Your task to perform on an android device: open a new tab in the chrome app Image 0: 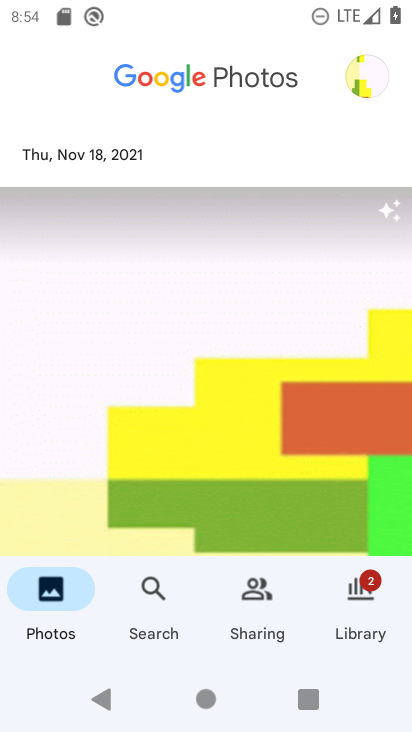
Step 0: press home button
Your task to perform on an android device: open a new tab in the chrome app Image 1: 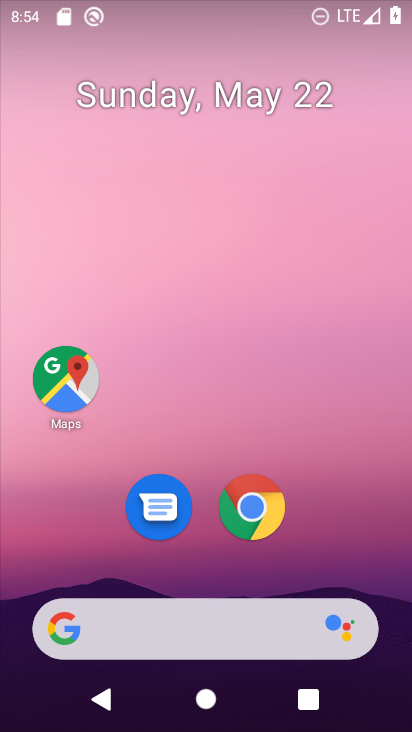
Step 1: click (258, 496)
Your task to perform on an android device: open a new tab in the chrome app Image 2: 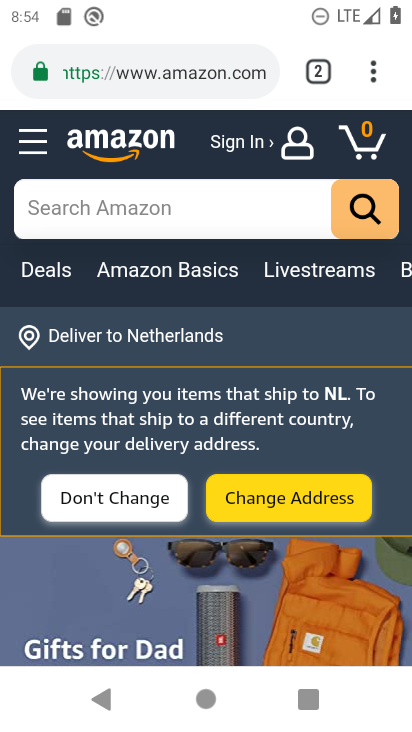
Step 2: click (395, 66)
Your task to perform on an android device: open a new tab in the chrome app Image 3: 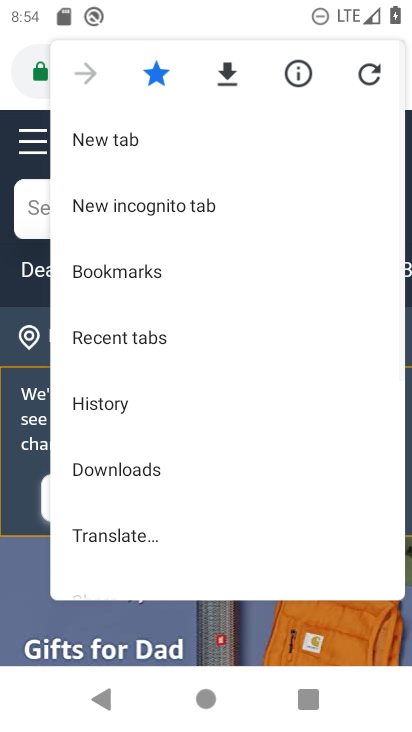
Step 3: click (132, 146)
Your task to perform on an android device: open a new tab in the chrome app Image 4: 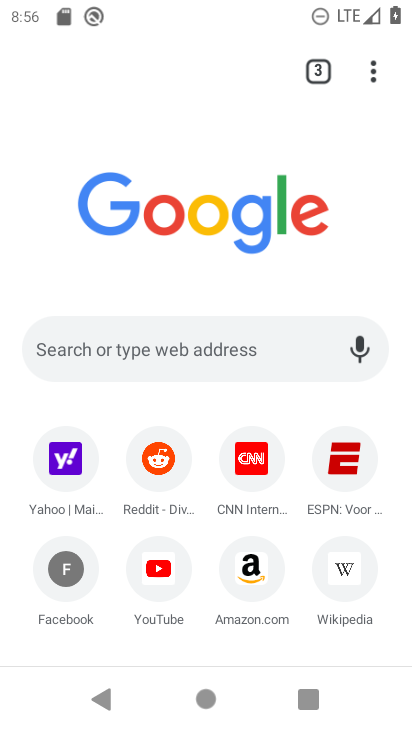
Step 4: click (362, 69)
Your task to perform on an android device: open a new tab in the chrome app Image 5: 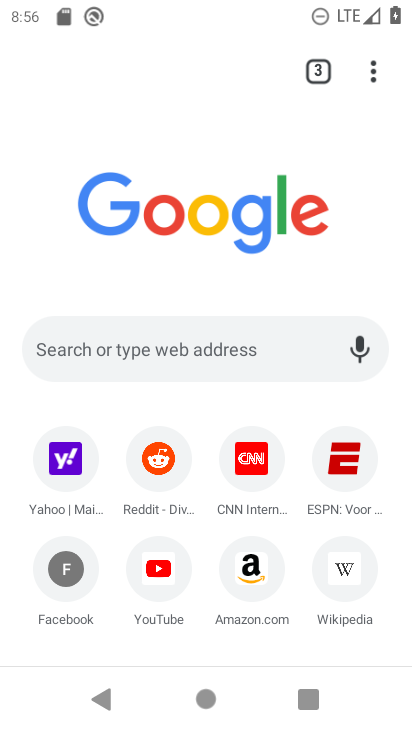
Step 5: click (373, 59)
Your task to perform on an android device: open a new tab in the chrome app Image 6: 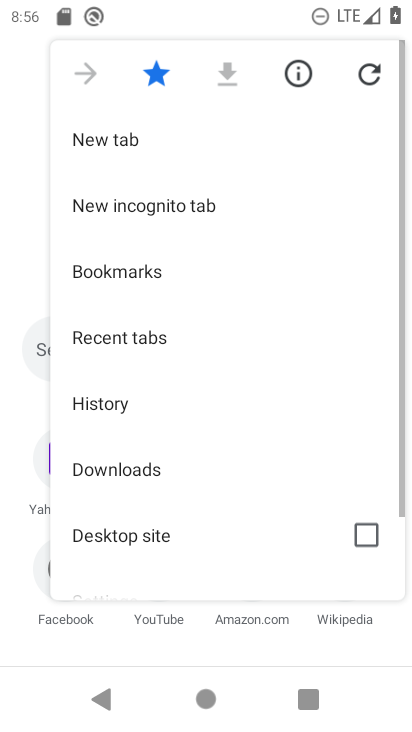
Step 6: click (173, 134)
Your task to perform on an android device: open a new tab in the chrome app Image 7: 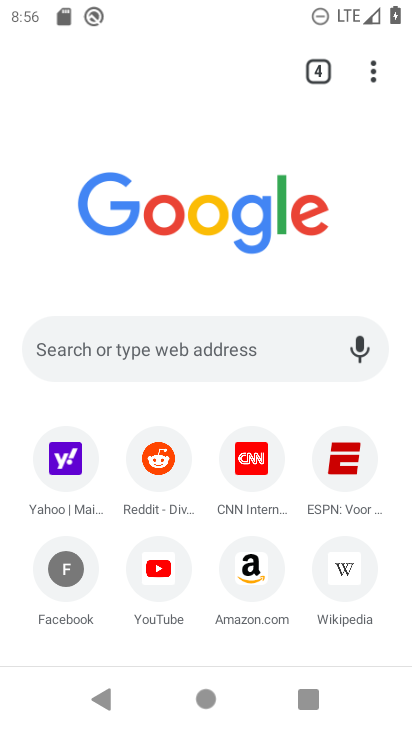
Step 7: task complete